Your task to perform on an android device: Open Google Chrome and open the bookmarks view Image 0: 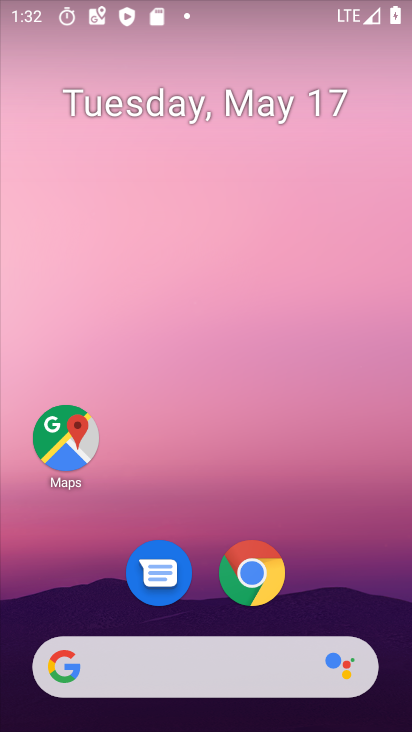
Step 0: click (246, 578)
Your task to perform on an android device: Open Google Chrome and open the bookmarks view Image 1: 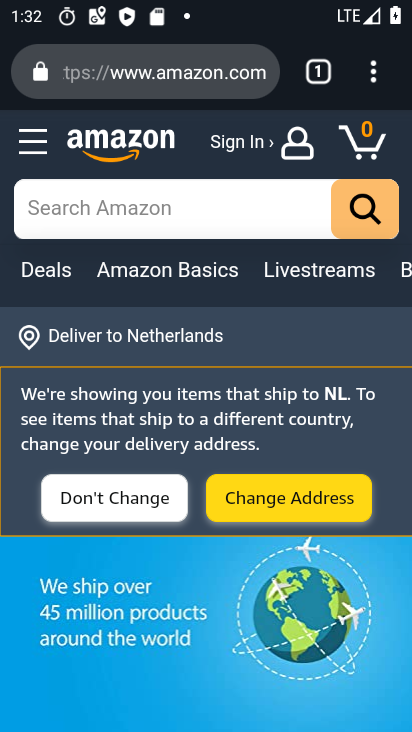
Step 1: click (372, 73)
Your task to perform on an android device: Open Google Chrome and open the bookmarks view Image 2: 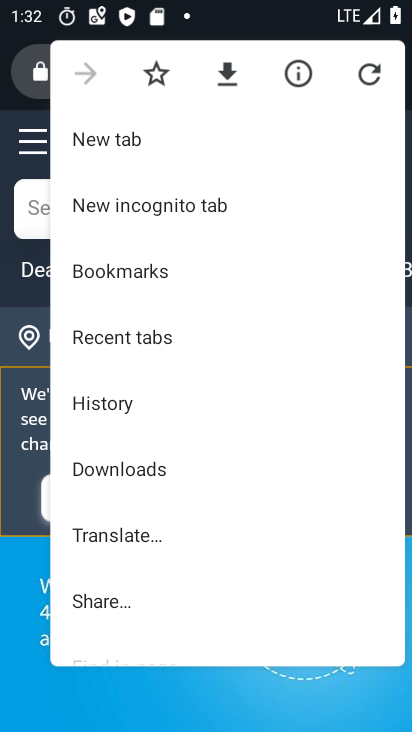
Step 2: click (186, 284)
Your task to perform on an android device: Open Google Chrome and open the bookmarks view Image 3: 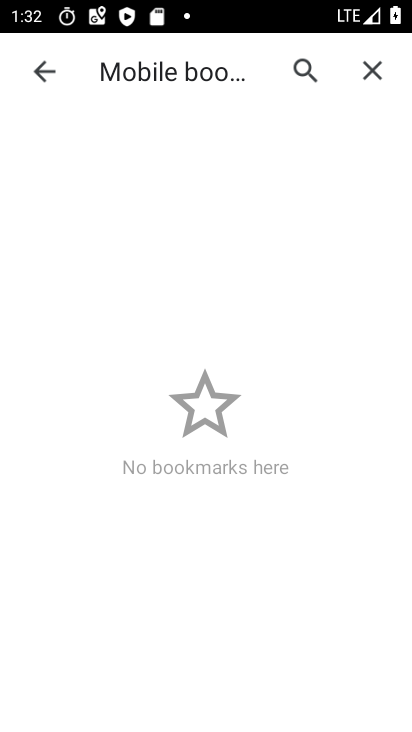
Step 3: task complete